Your task to perform on an android device: turn off sleep mode Image 0: 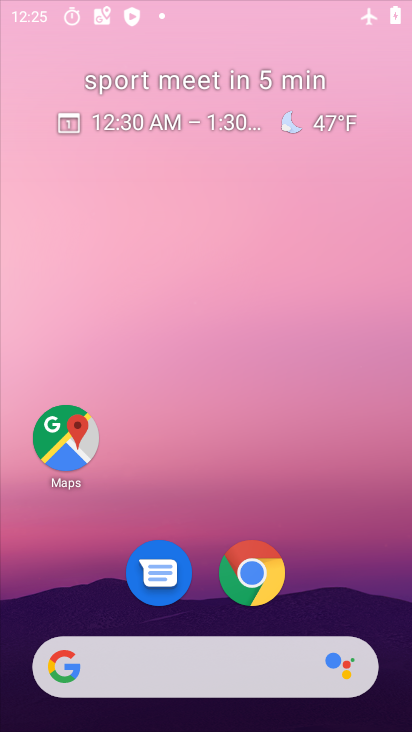
Step 0: drag from (188, 595) to (242, 75)
Your task to perform on an android device: turn off sleep mode Image 1: 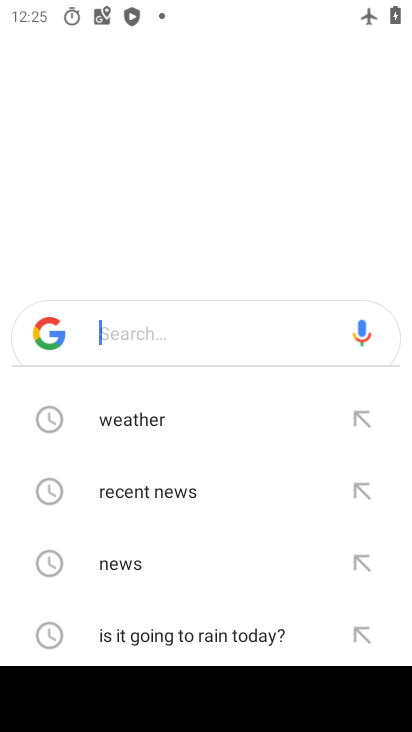
Step 1: press home button
Your task to perform on an android device: turn off sleep mode Image 2: 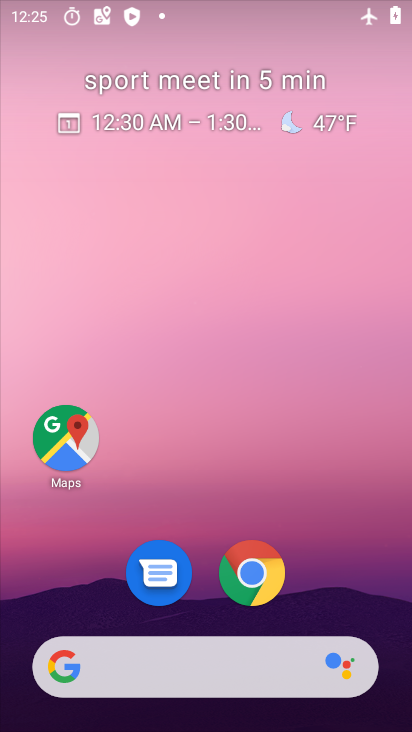
Step 2: drag from (199, 633) to (234, 260)
Your task to perform on an android device: turn off sleep mode Image 3: 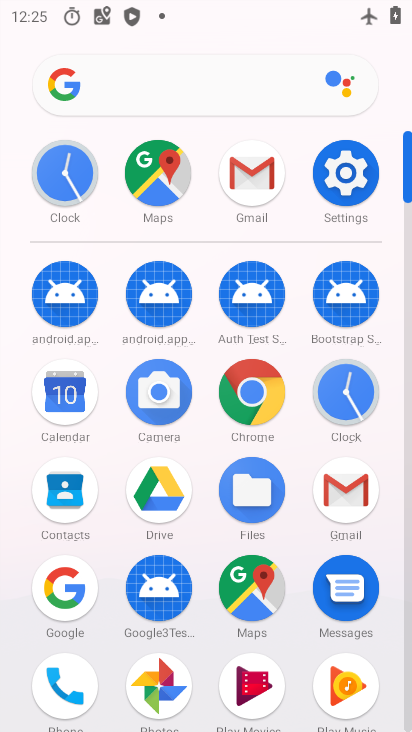
Step 3: click (317, 161)
Your task to perform on an android device: turn off sleep mode Image 4: 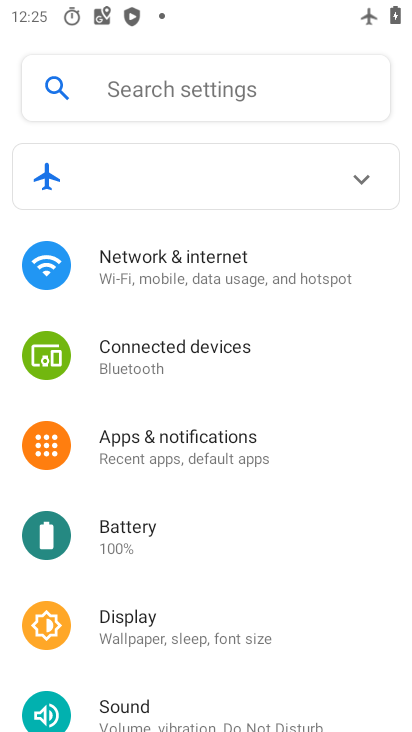
Step 4: drag from (202, 567) to (258, 157)
Your task to perform on an android device: turn off sleep mode Image 5: 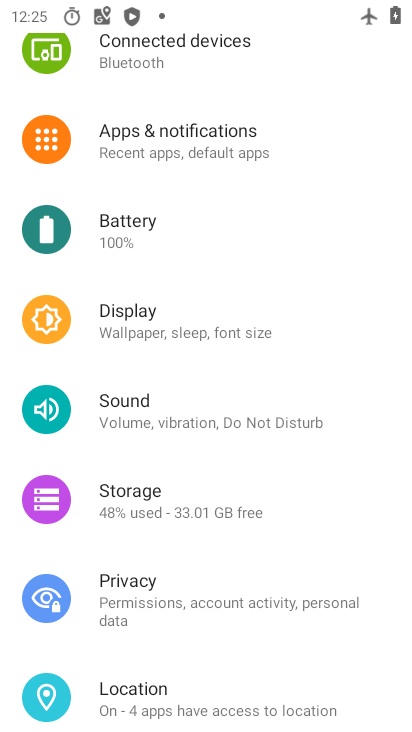
Step 5: drag from (239, 311) to (250, 272)
Your task to perform on an android device: turn off sleep mode Image 6: 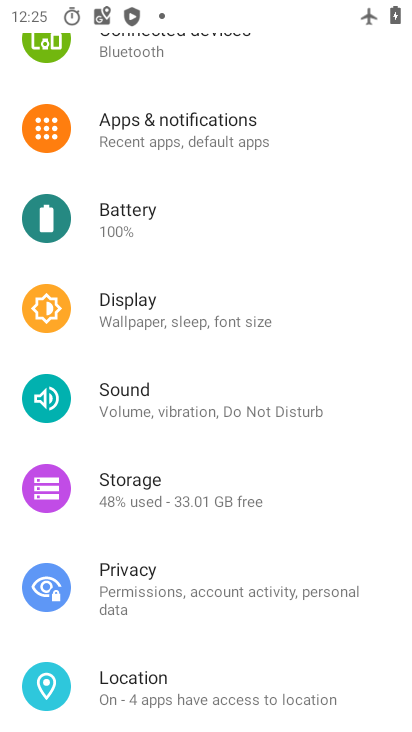
Step 6: click (142, 299)
Your task to perform on an android device: turn off sleep mode Image 7: 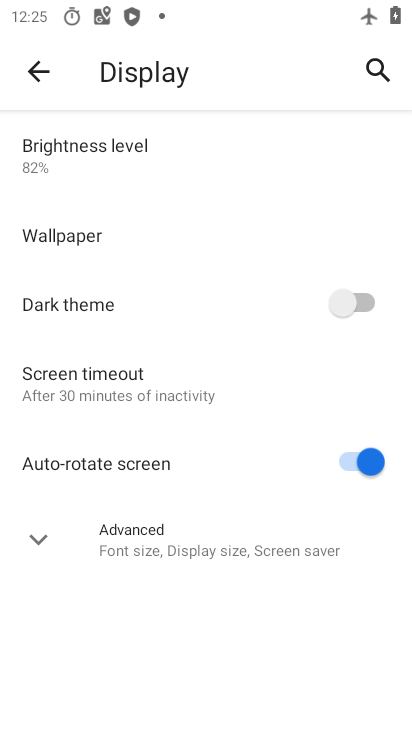
Step 7: click (154, 369)
Your task to perform on an android device: turn off sleep mode Image 8: 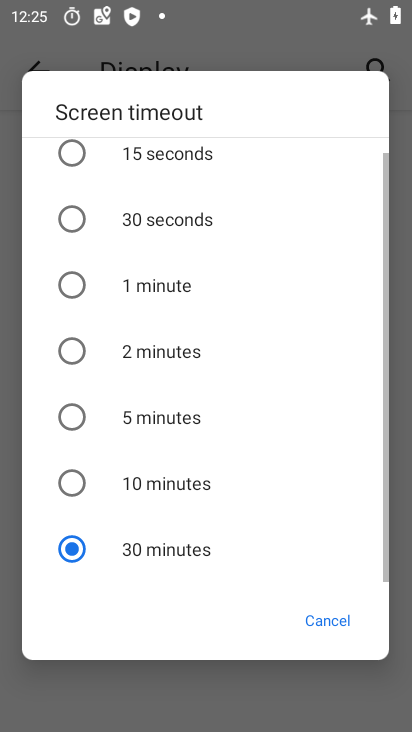
Step 8: task complete